Your task to perform on an android device: turn on the 12-hour format for clock Image 0: 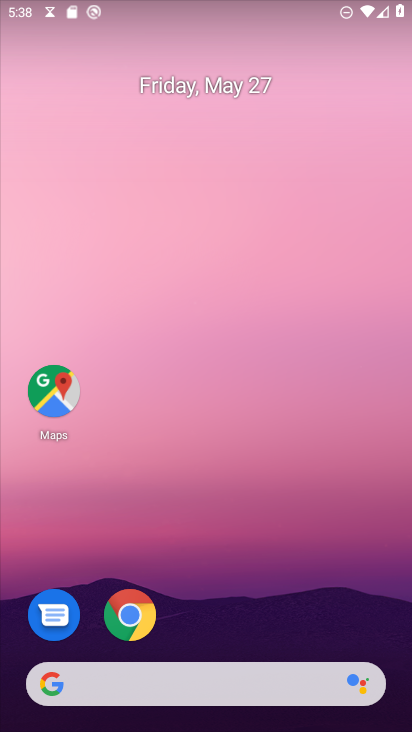
Step 0: drag from (313, 586) to (240, 40)
Your task to perform on an android device: turn on the 12-hour format for clock Image 1: 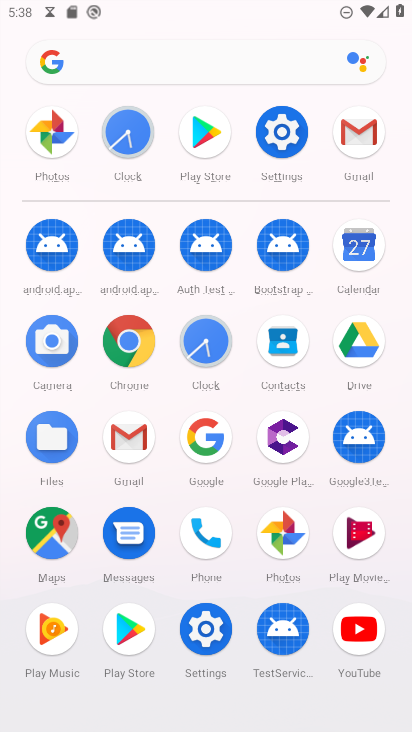
Step 1: click (205, 360)
Your task to perform on an android device: turn on the 12-hour format for clock Image 2: 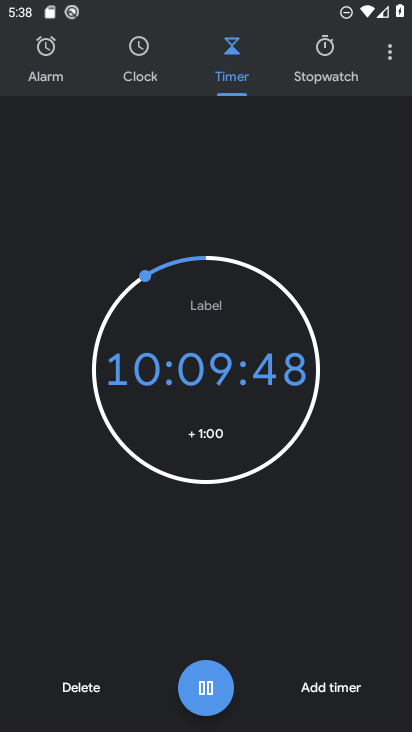
Step 2: click (387, 59)
Your task to perform on an android device: turn on the 12-hour format for clock Image 3: 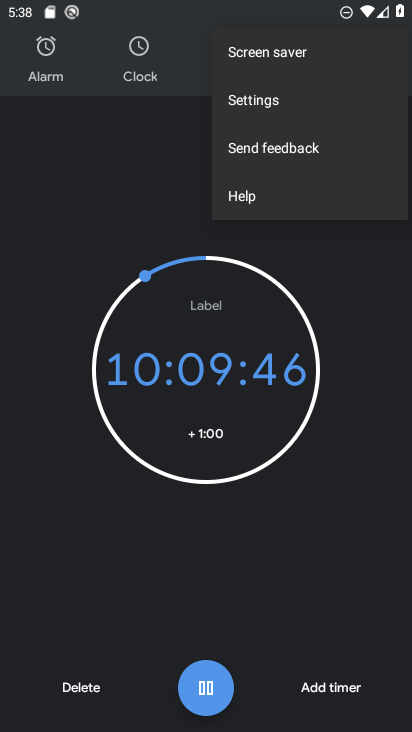
Step 3: click (267, 98)
Your task to perform on an android device: turn on the 12-hour format for clock Image 4: 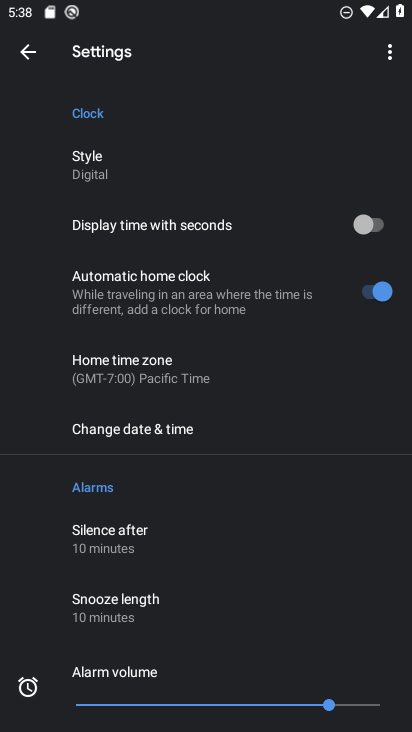
Step 4: click (240, 431)
Your task to perform on an android device: turn on the 12-hour format for clock Image 5: 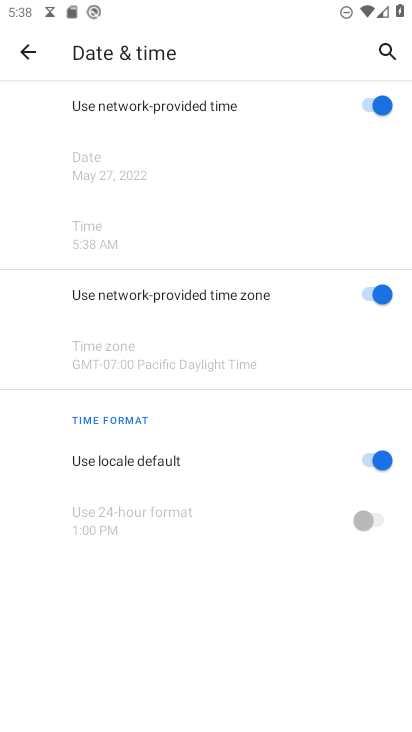
Step 5: task complete